Your task to perform on an android device: turn on translation in the chrome app Image 0: 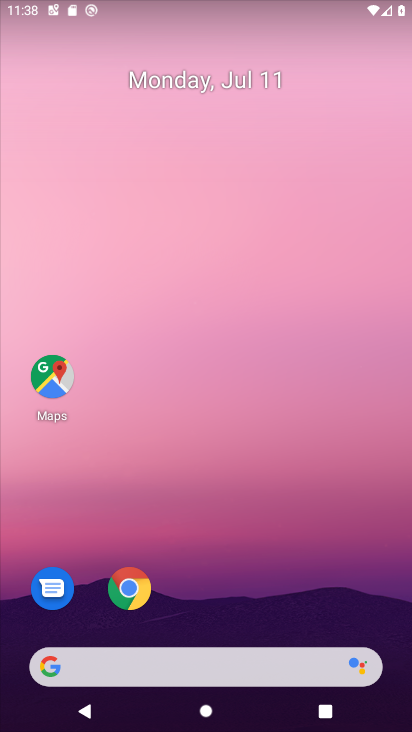
Step 0: drag from (263, 705) to (159, 170)
Your task to perform on an android device: turn on translation in the chrome app Image 1: 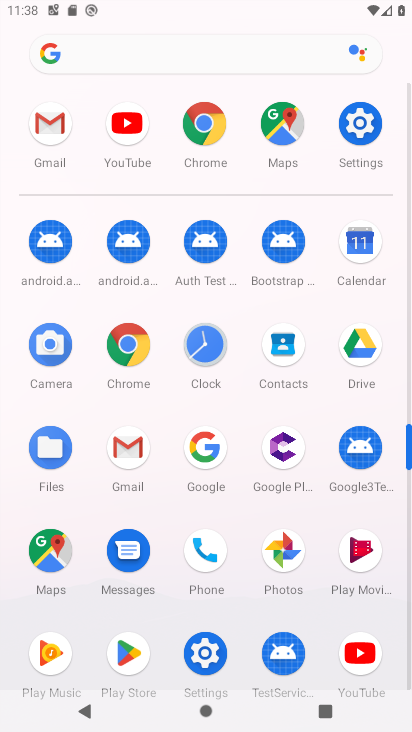
Step 1: click (128, 334)
Your task to perform on an android device: turn on translation in the chrome app Image 2: 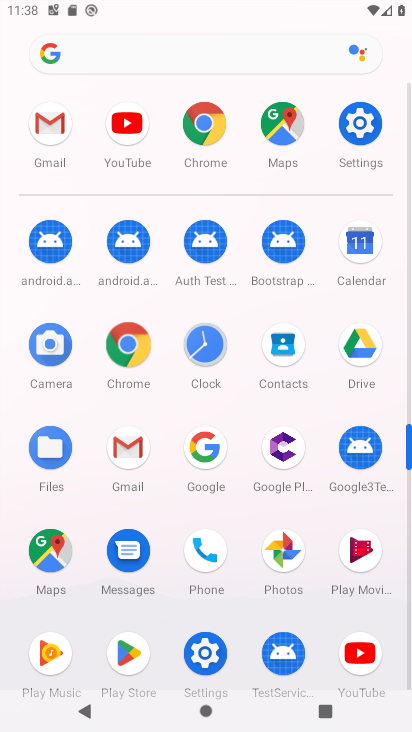
Step 2: click (128, 335)
Your task to perform on an android device: turn on translation in the chrome app Image 3: 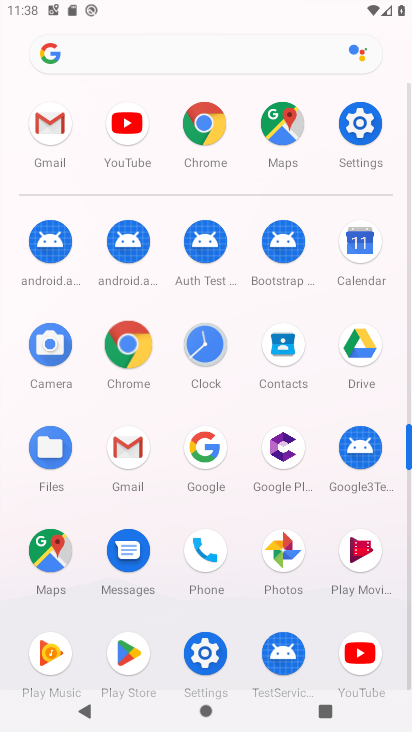
Step 3: click (128, 335)
Your task to perform on an android device: turn on translation in the chrome app Image 4: 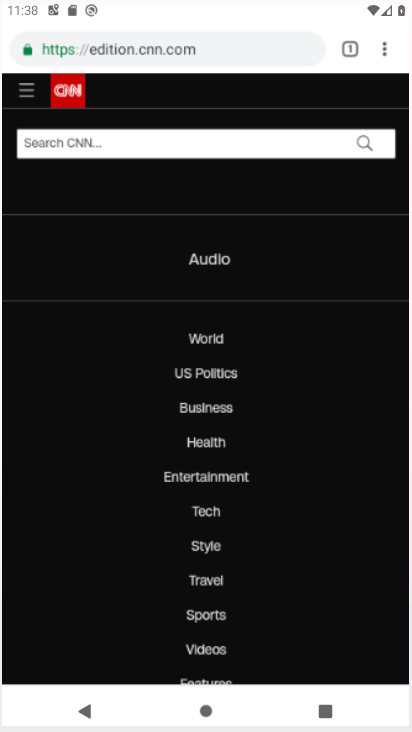
Step 4: click (130, 334)
Your task to perform on an android device: turn on translation in the chrome app Image 5: 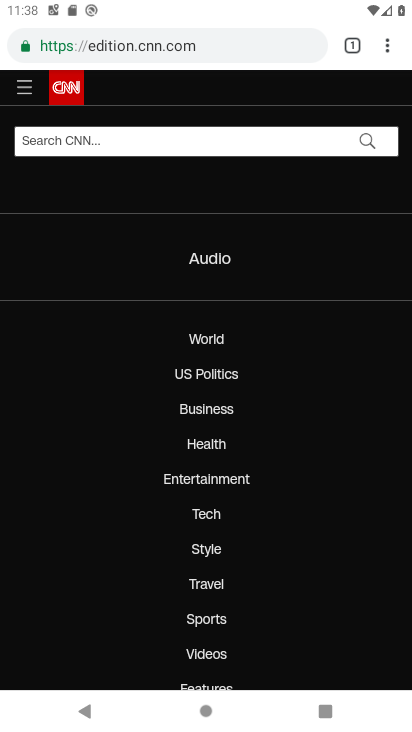
Step 5: drag from (390, 41) to (216, 542)
Your task to perform on an android device: turn on translation in the chrome app Image 6: 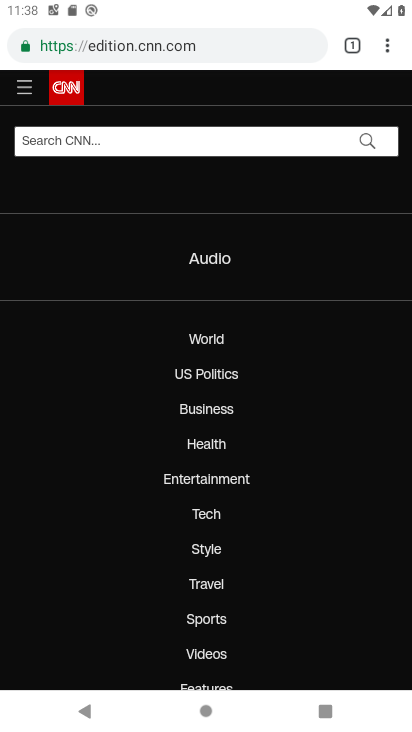
Step 6: click (220, 535)
Your task to perform on an android device: turn on translation in the chrome app Image 7: 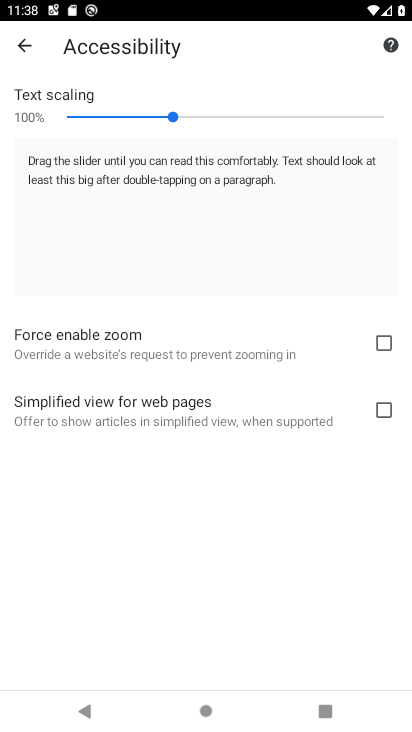
Step 7: click (16, 41)
Your task to perform on an android device: turn on translation in the chrome app Image 8: 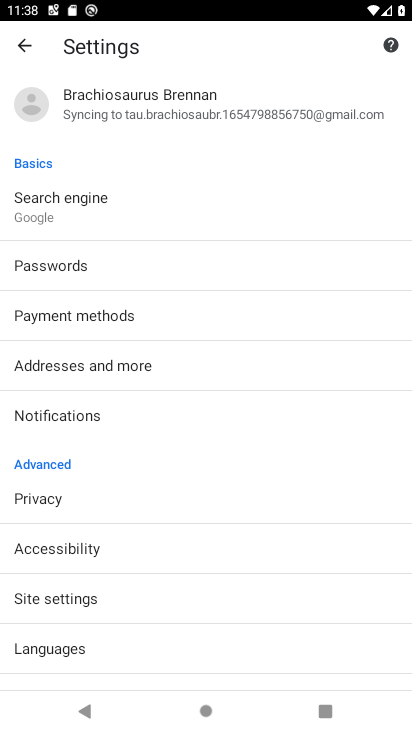
Step 8: click (43, 593)
Your task to perform on an android device: turn on translation in the chrome app Image 9: 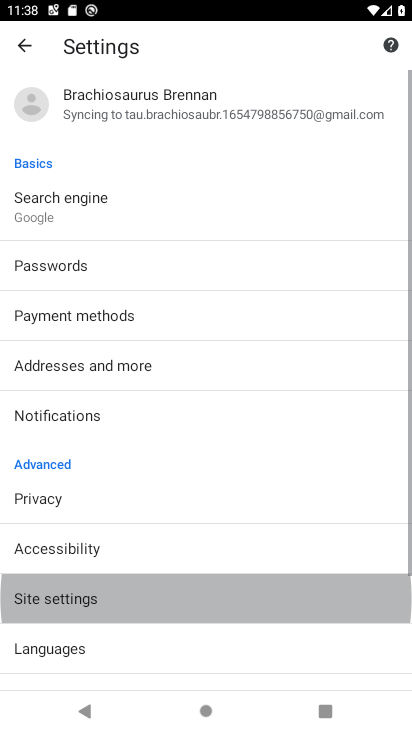
Step 9: click (40, 592)
Your task to perform on an android device: turn on translation in the chrome app Image 10: 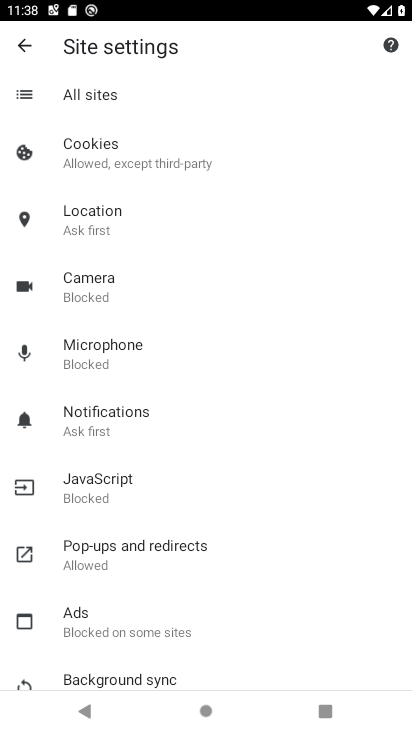
Step 10: click (21, 49)
Your task to perform on an android device: turn on translation in the chrome app Image 11: 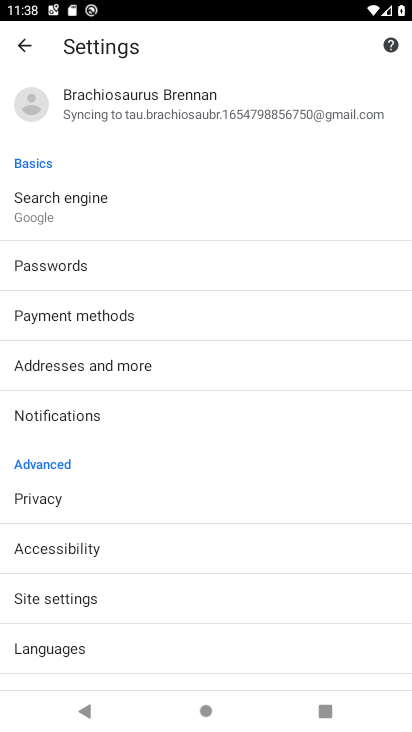
Step 11: drag from (96, 569) to (128, 266)
Your task to perform on an android device: turn on translation in the chrome app Image 12: 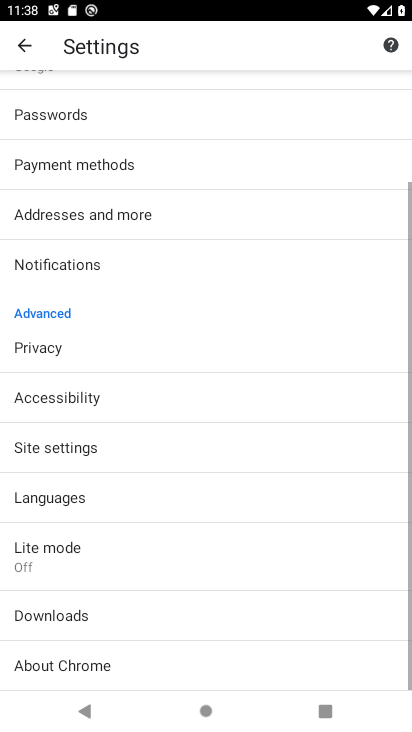
Step 12: click (117, 490)
Your task to perform on an android device: turn on translation in the chrome app Image 13: 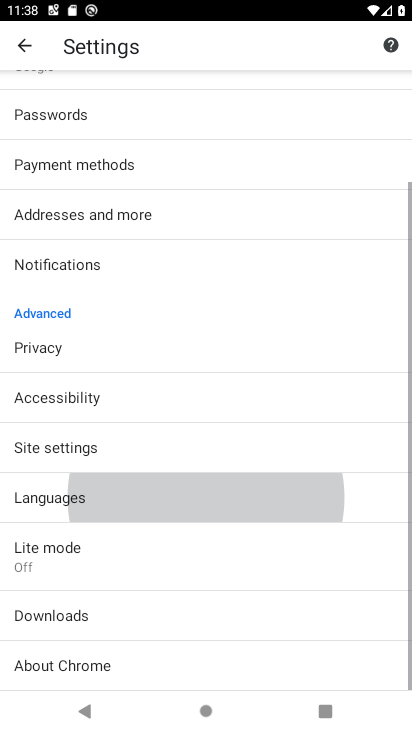
Step 13: click (118, 490)
Your task to perform on an android device: turn on translation in the chrome app Image 14: 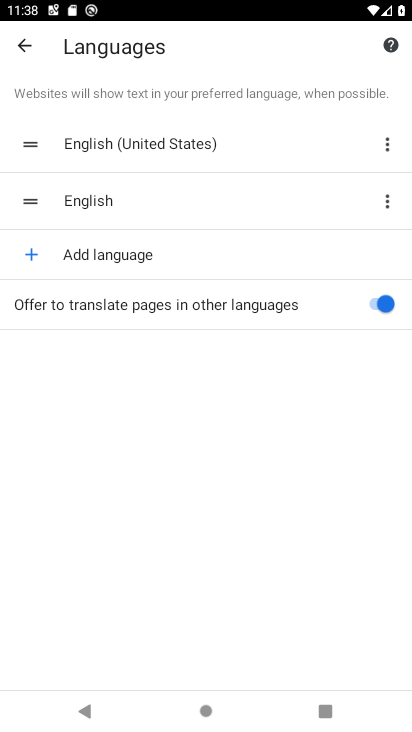
Step 14: task complete